Your task to perform on an android device: move a message to another label in the gmail app Image 0: 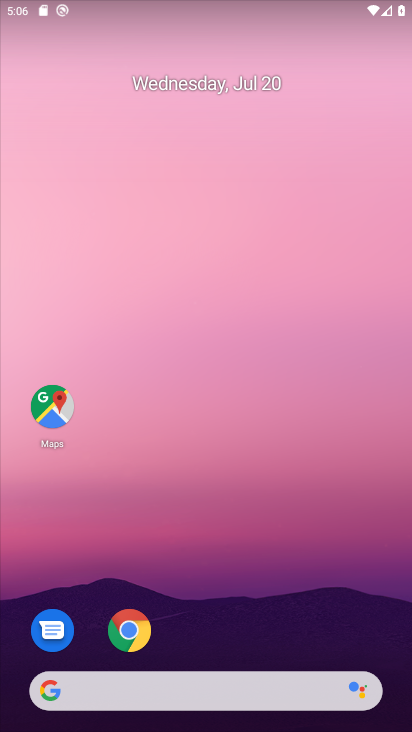
Step 0: press home button
Your task to perform on an android device: move a message to another label in the gmail app Image 1: 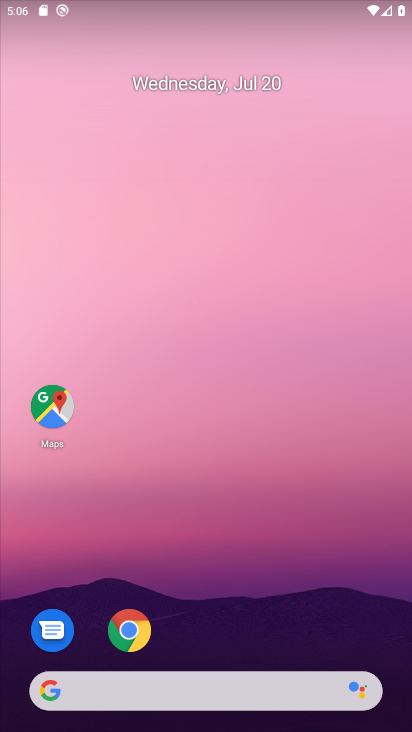
Step 1: drag from (228, 650) to (318, 39)
Your task to perform on an android device: move a message to another label in the gmail app Image 2: 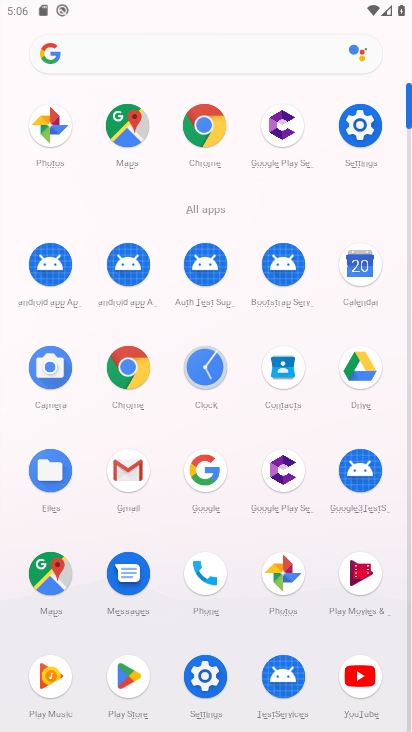
Step 2: click (118, 480)
Your task to perform on an android device: move a message to another label in the gmail app Image 3: 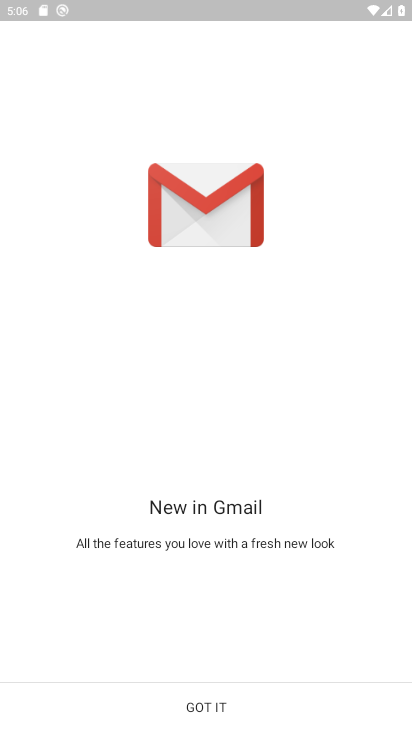
Step 3: click (187, 707)
Your task to perform on an android device: move a message to another label in the gmail app Image 4: 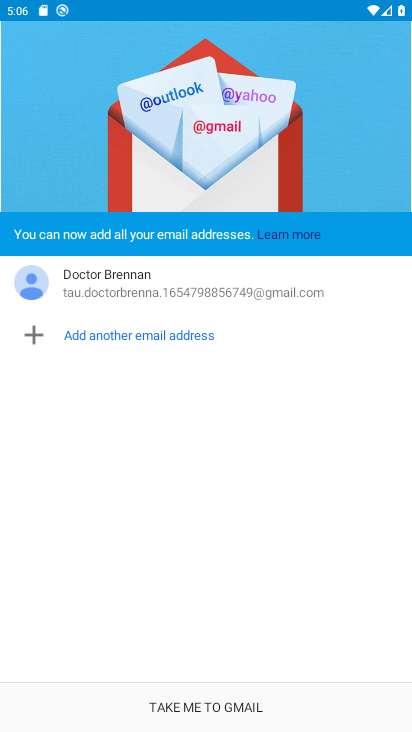
Step 4: click (185, 717)
Your task to perform on an android device: move a message to another label in the gmail app Image 5: 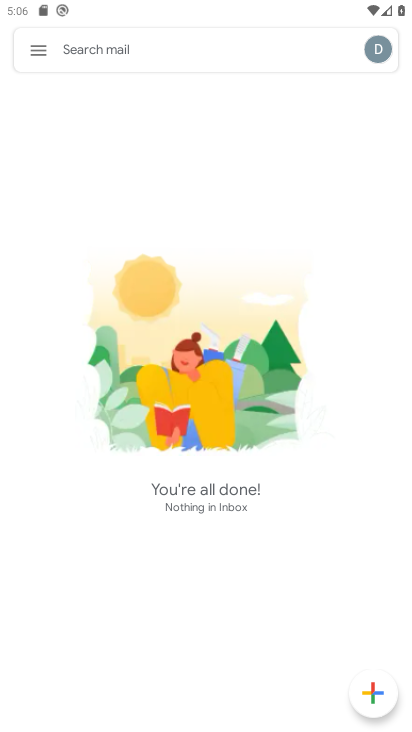
Step 5: click (36, 50)
Your task to perform on an android device: move a message to another label in the gmail app Image 6: 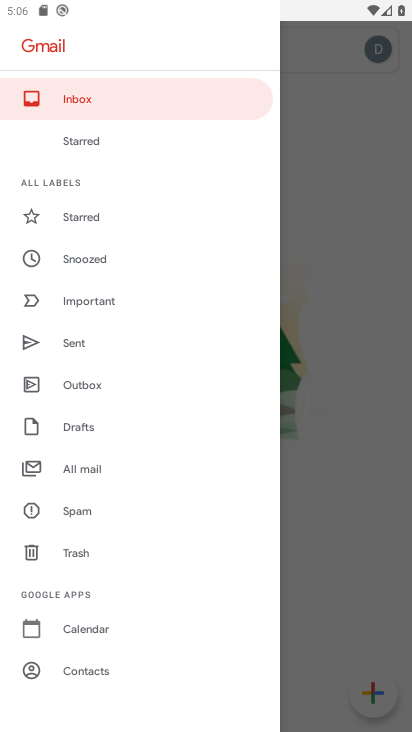
Step 6: click (92, 468)
Your task to perform on an android device: move a message to another label in the gmail app Image 7: 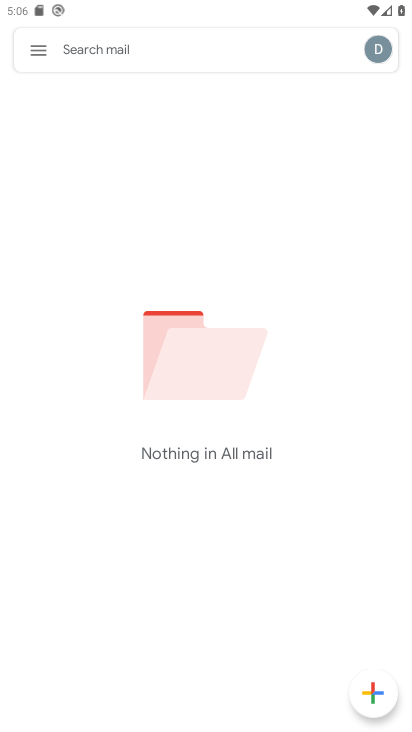
Step 7: task complete